Your task to perform on an android device: Open calendar and show me the third week of next month Image 0: 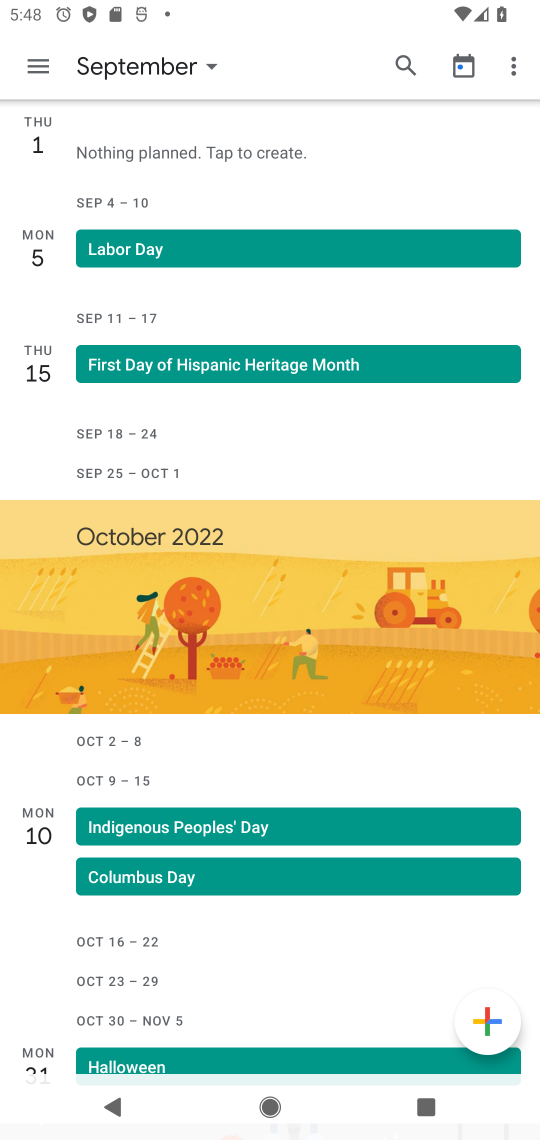
Step 0: click (138, 67)
Your task to perform on an android device: Open calendar and show me the third week of next month Image 1: 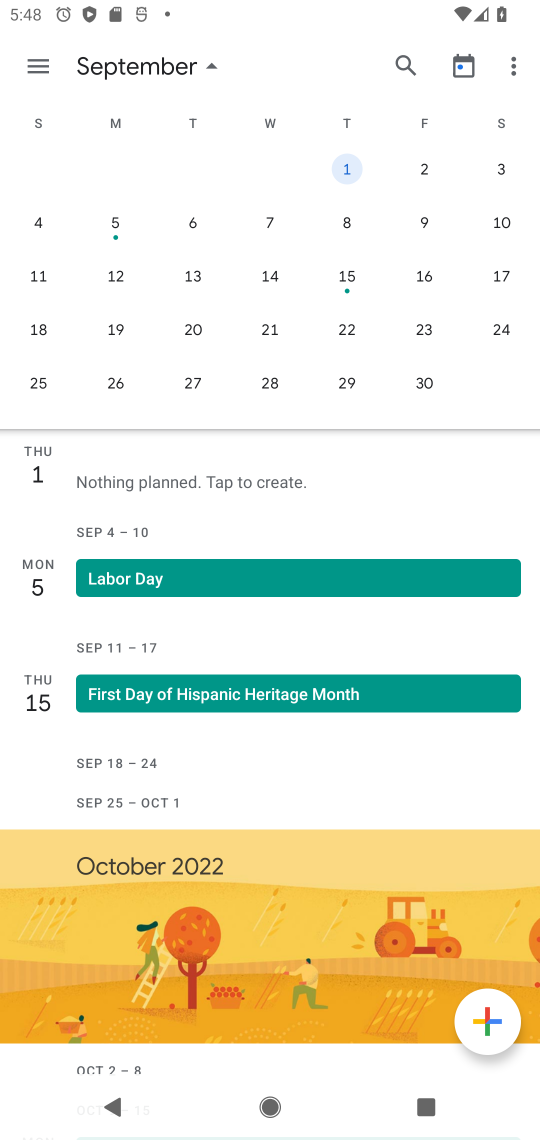
Step 1: click (24, 281)
Your task to perform on an android device: Open calendar and show me the third week of next month Image 2: 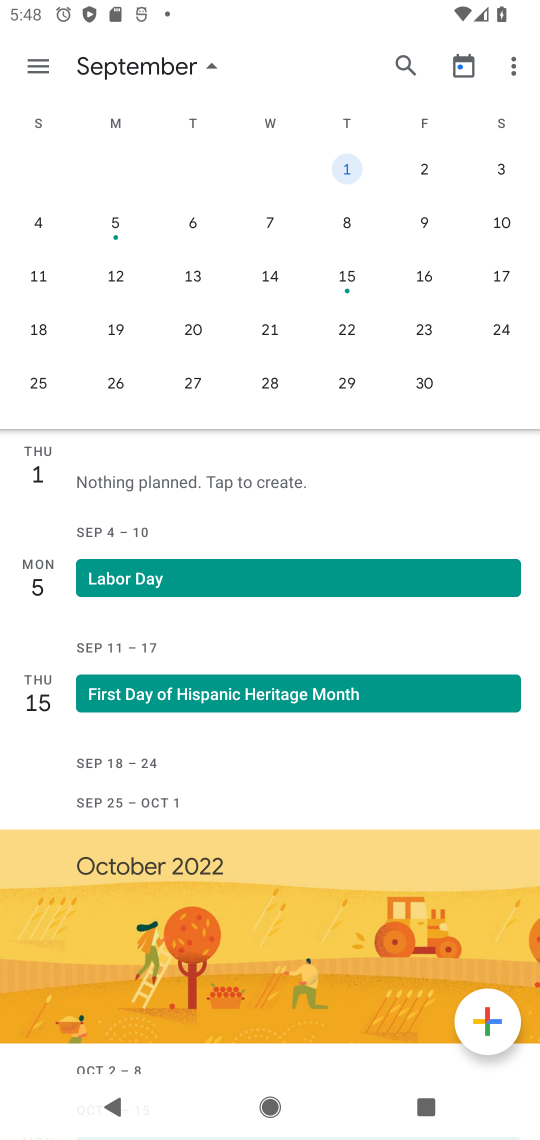
Step 2: click (38, 283)
Your task to perform on an android device: Open calendar and show me the third week of next month Image 3: 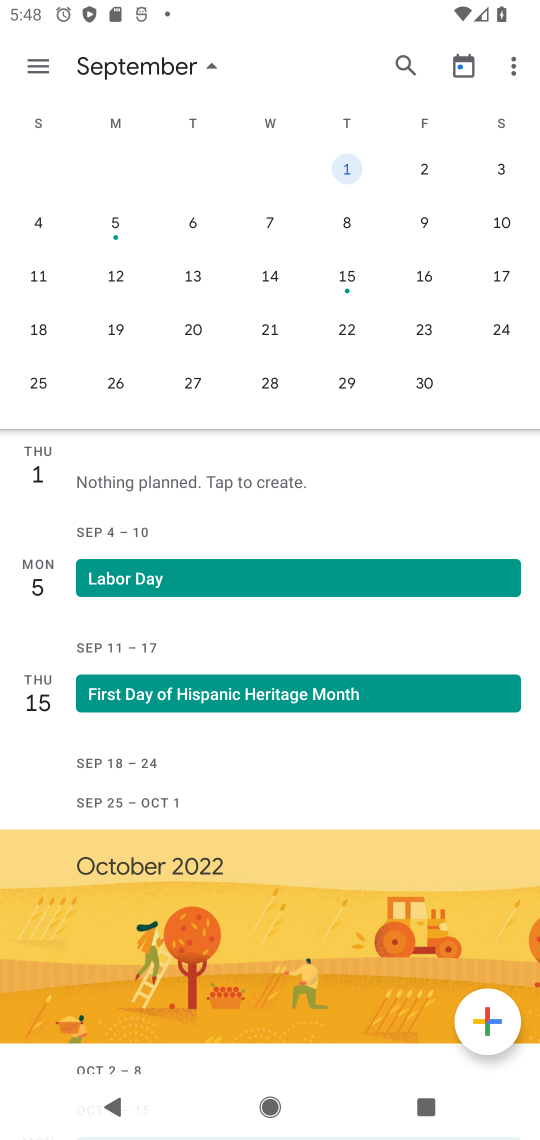
Step 3: click (39, 270)
Your task to perform on an android device: Open calendar and show me the third week of next month Image 4: 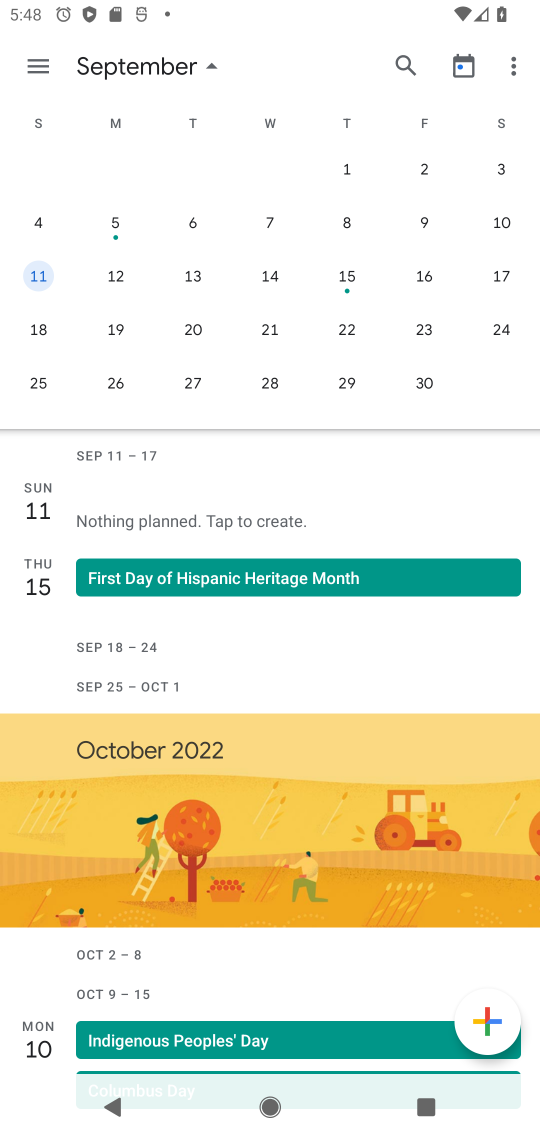
Step 4: task complete